Your task to perform on an android device: turn on location history Image 0: 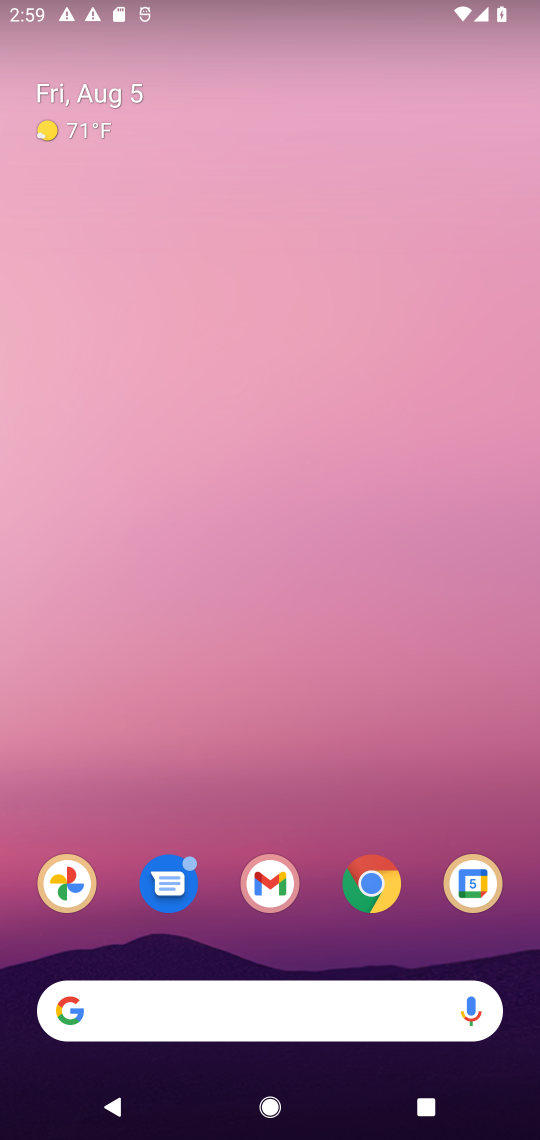
Step 0: drag from (310, 950) to (390, 0)
Your task to perform on an android device: turn on location history Image 1: 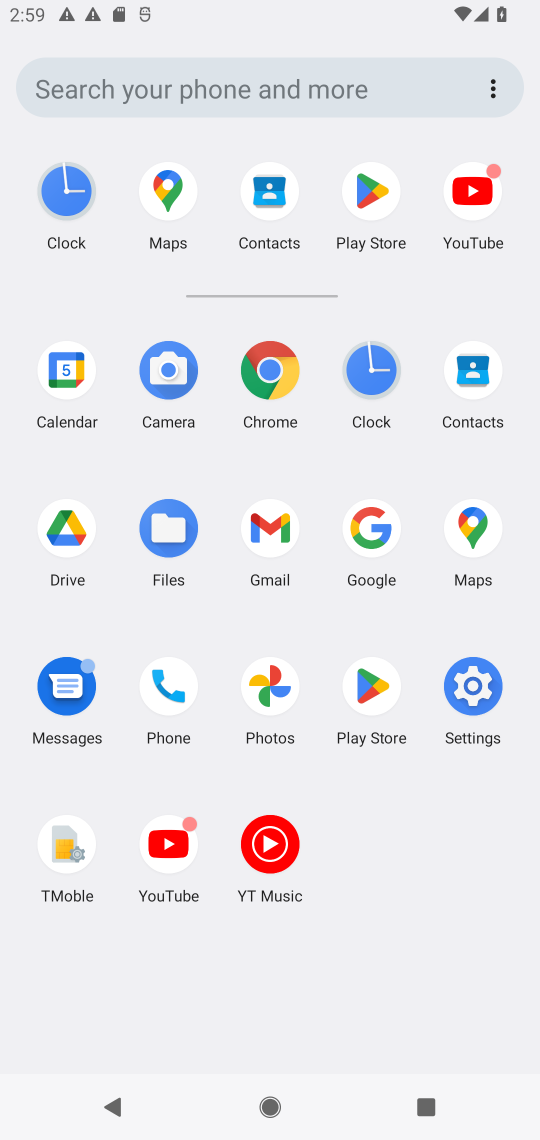
Step 1: click (474, 676)
Your task to perform on an android device: turn on location history Image 2: 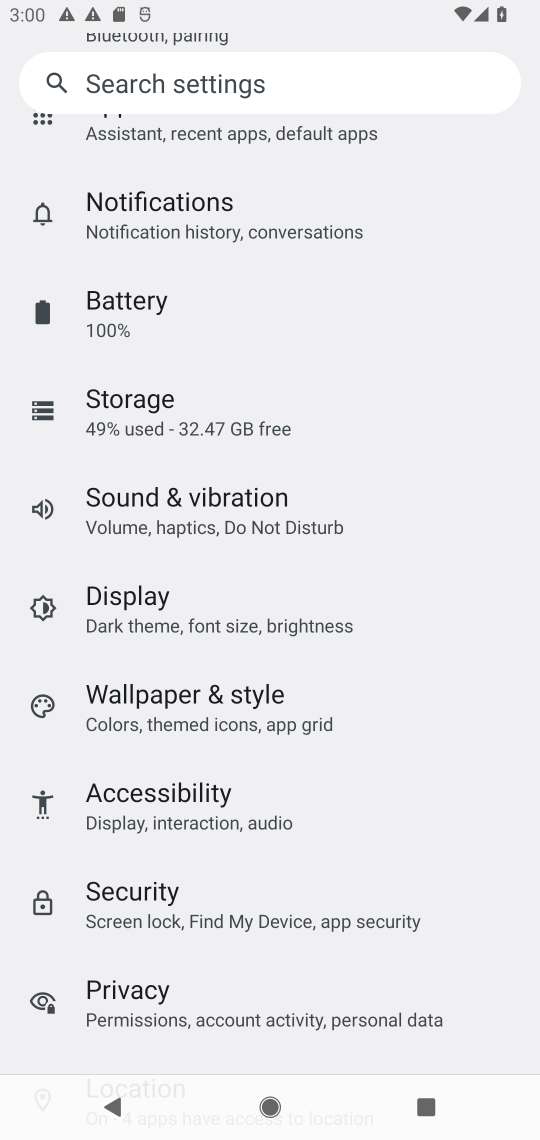
Step 2: drag from (227, 967) to (280, 455)
Your task to perform on an android device: turn on location history Image 3: 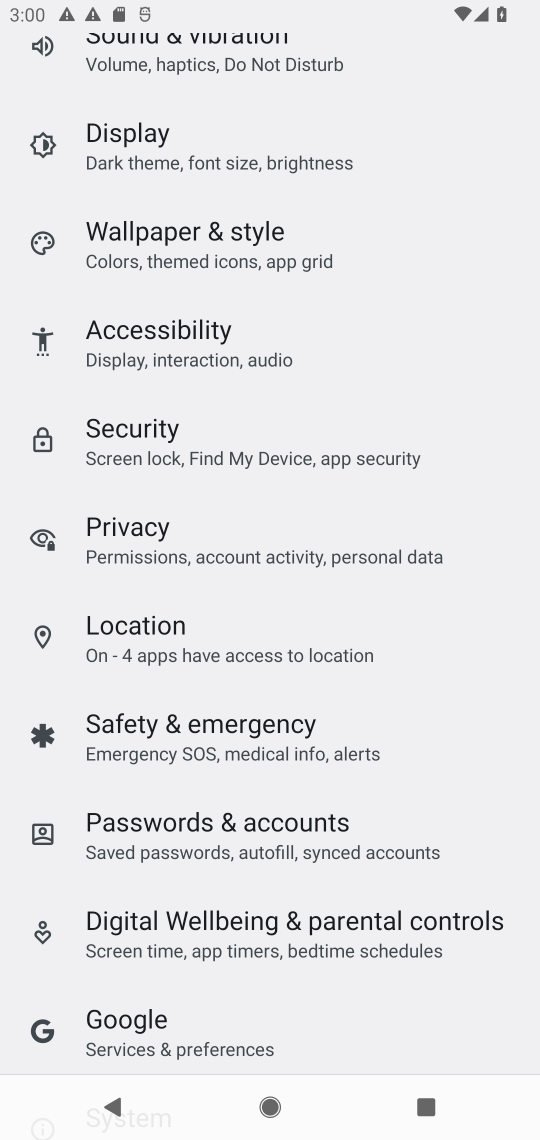
Step 3: click (189, 617)
Your task to perform on an android device: turn on location history Image 4: 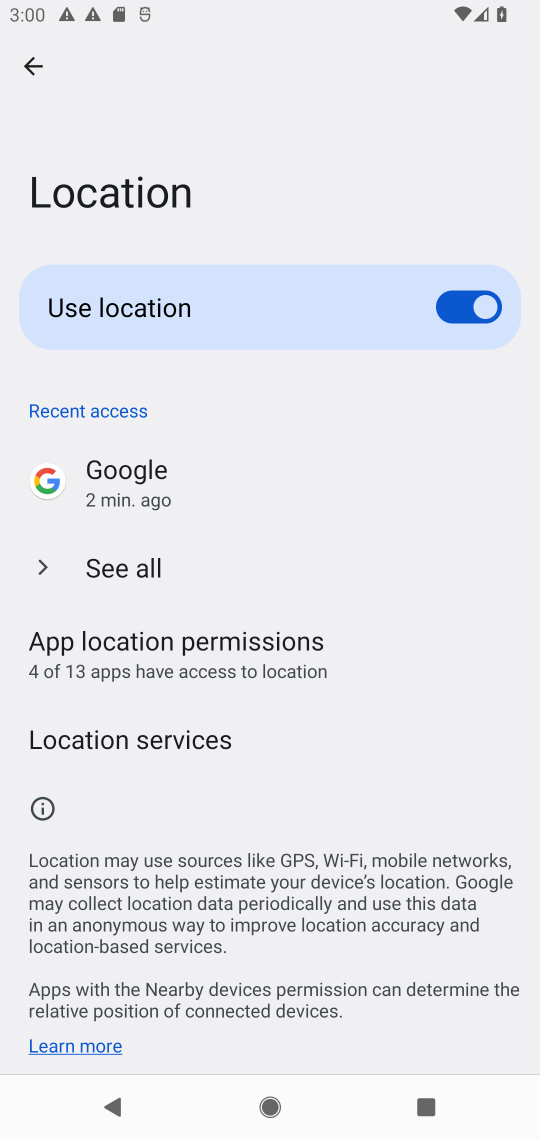
Step 4: click (182, 740)
Your task to perform on an android device: turn on location history Image 5: 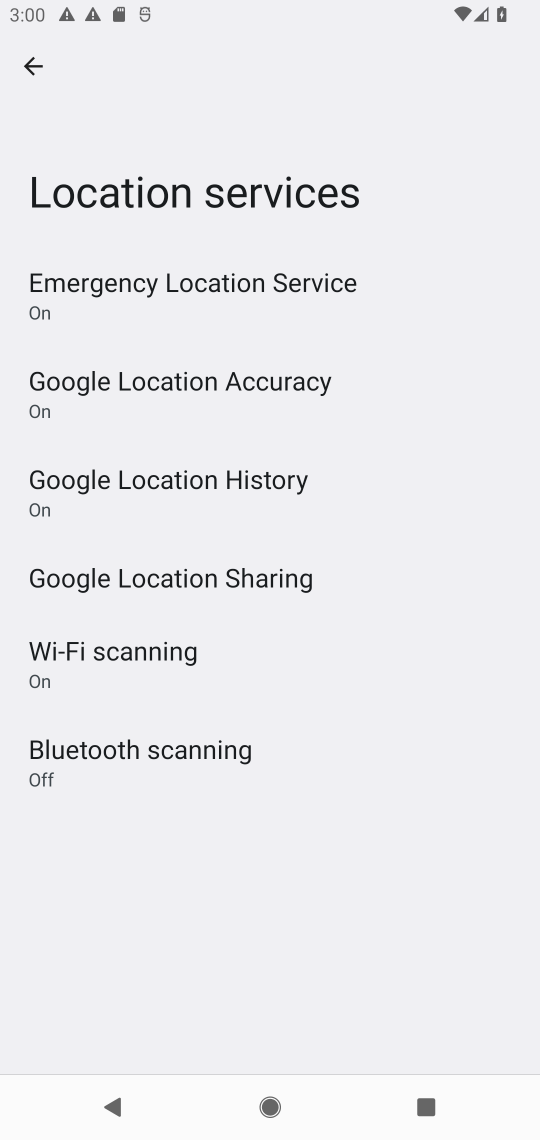
Step 5: click (322, 476)
Your task to perform on an android device: turn on location history Image 6: 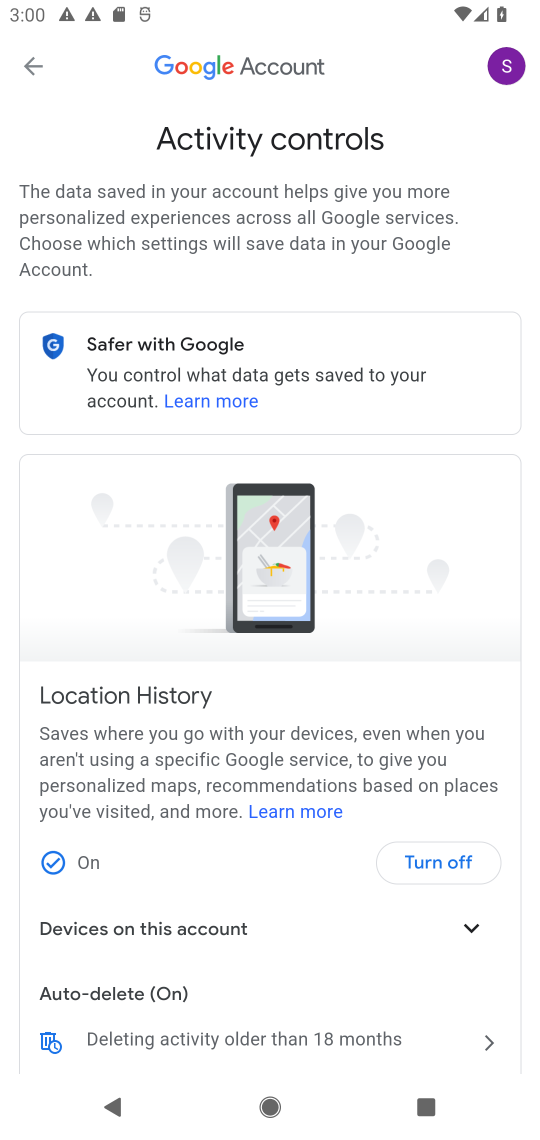
Step 6: task complete